Your task to perform on an android device: Go to network settings Image 0: 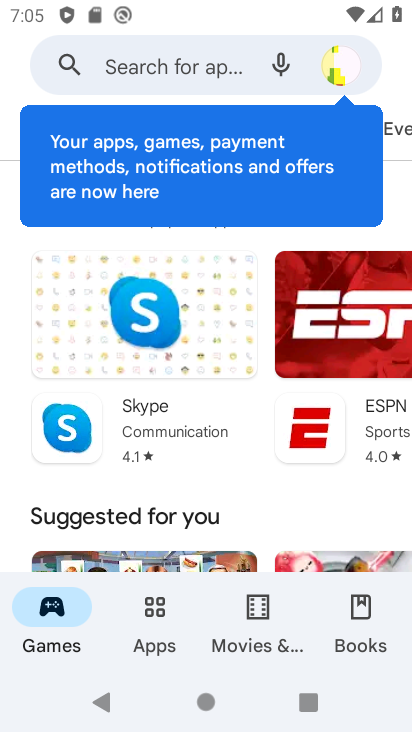
Step 0: press home button
Your task to perform on an android device: Go to network settings Image 1: 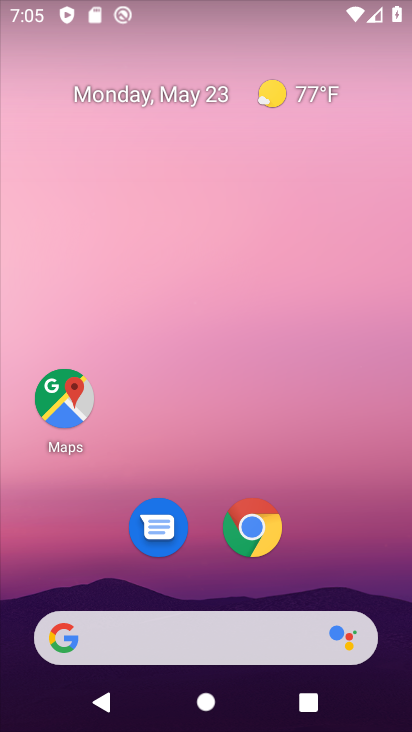
Step 1: drag from (243, 673) to (241, 100)
Your task to perform on an android device: Go to network settings Image 2: 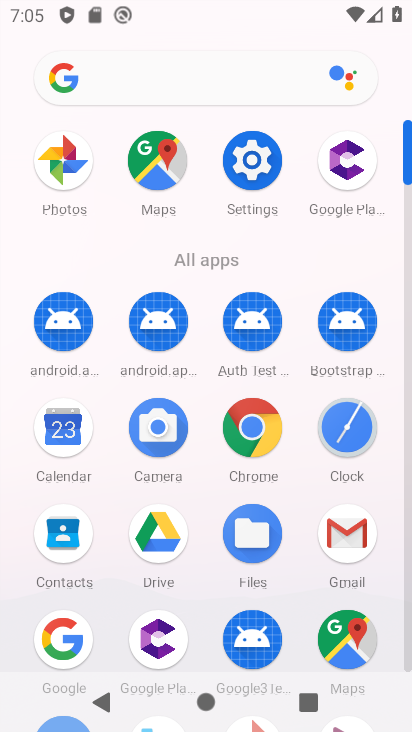
Step 2: click (250, 154)
Your task to perform on an android device: Go to network settings Image 3: 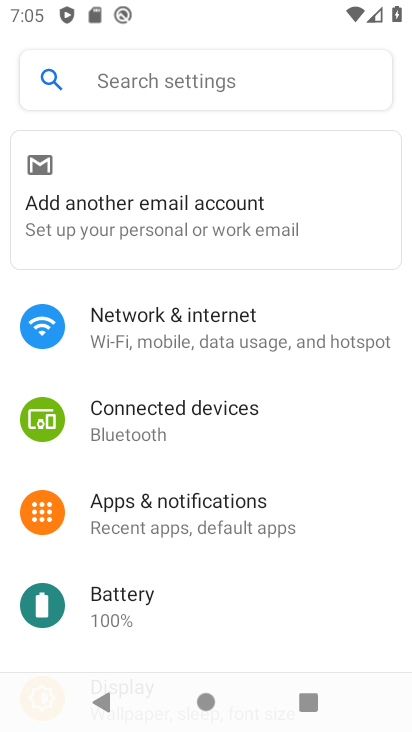
Step 3: click (166, 335)
Your task to perform on an android device: Go to network settings Image 4: 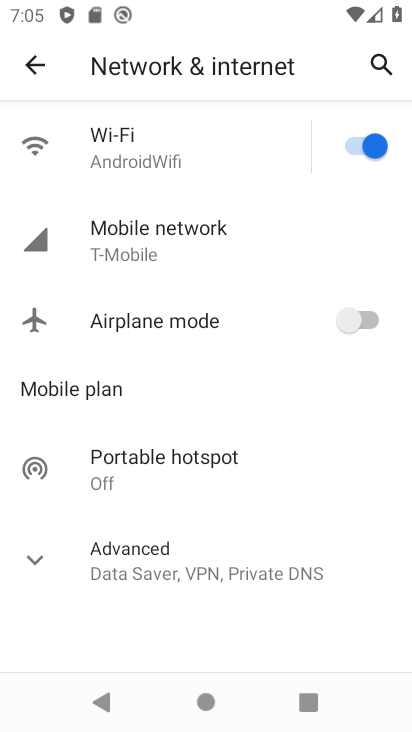
Step 4: task complete